Your task to perform on an android device: toggle sleep mode Image 0: 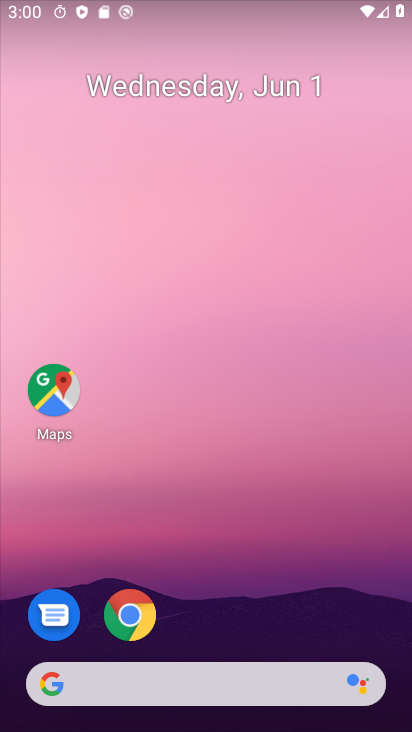
Step 0: drag from (235, 648) to (258, 40)
Your task to perform on an android device: toggle sleep mode Image 1: 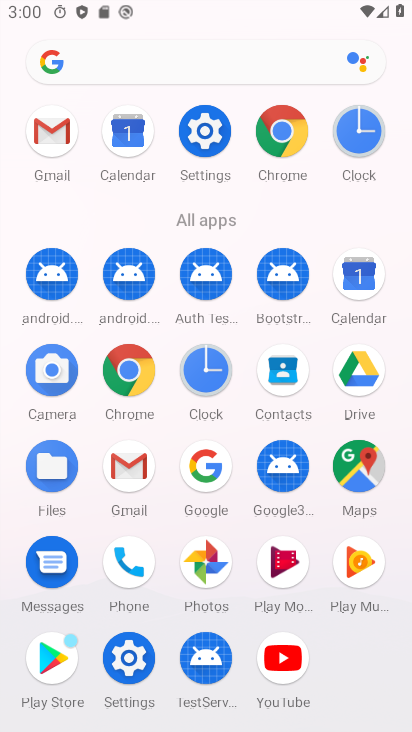
Step 1: click (218, 116)
Your task to perform on an android device: toggle sleep mode Image 2: 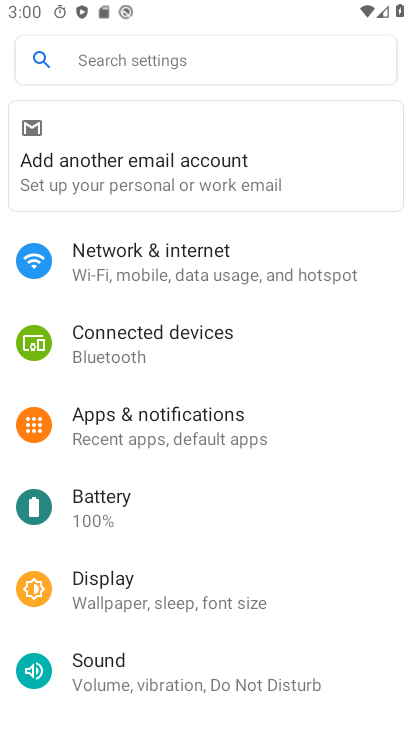
Step 2: click (208, 611)
Your task to perform on an android device: toggle sleep mode Image 3: 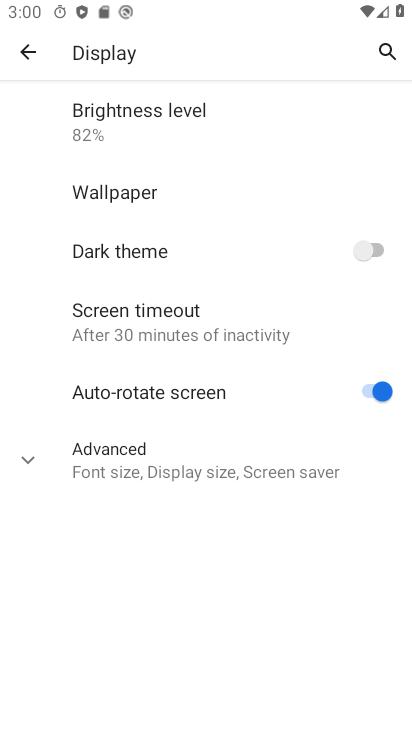
Step 3: task complete